Your task to perform on an android device: change keyboard looks Image 0: 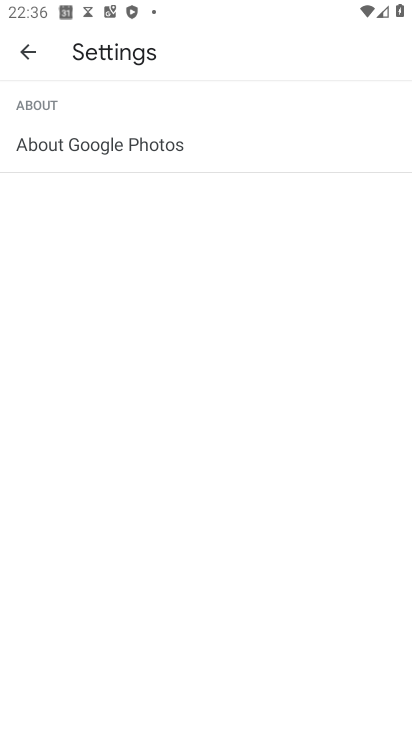
Step 0: press home button
Your task to perform on an android device: change keyboard looks Image 1: 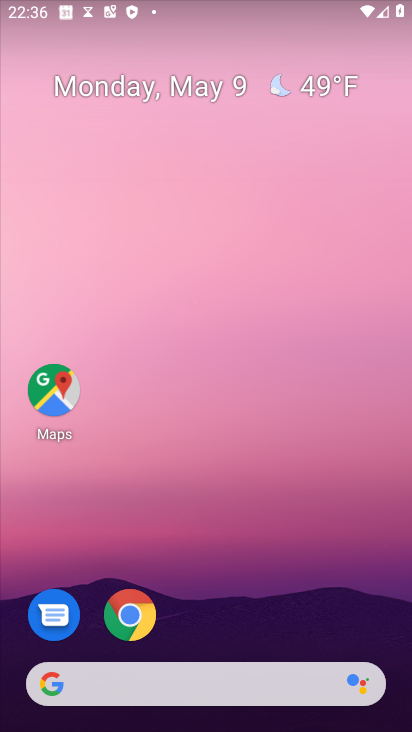
Step 1: drag from (256, 634) to (256, 375)
Your task to perform on an android device: change keyboard looks Image 2: 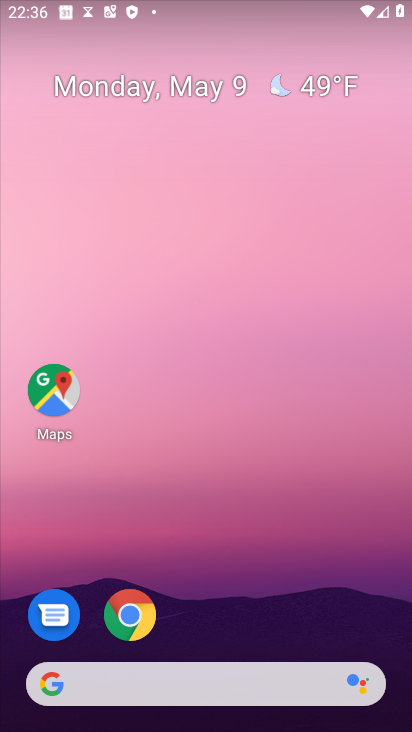
Step 2: drag from (264, 356) to (298, 135)
Your task to perform on an android device: change keyboard looks Image 3: 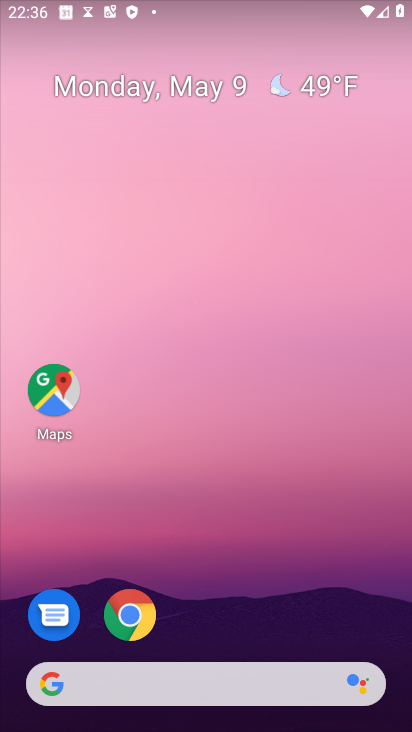
Step 3: drag from (207, 565) to (264, 137)
Your task to perform on an android device: change keyboard looks Image 4: 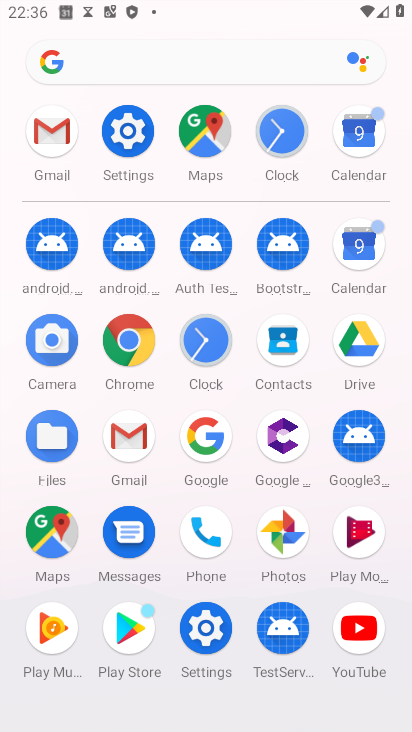
Step 4: click (129, 150)
Your task to perform on an android device: change keyboard looks Image 5: 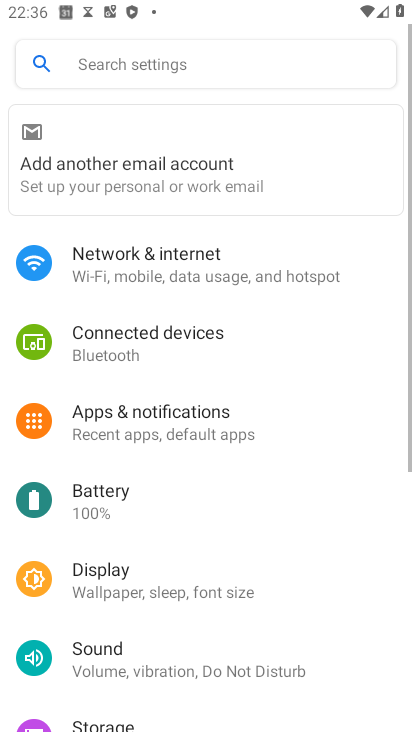
Step 5: drag from (194, 653) to (225, 298)
Your task to perform on an android device: change keyboard looks Image 6: 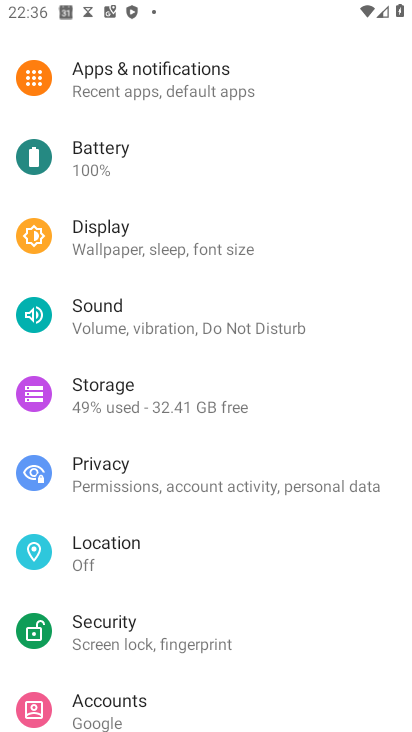
Step 6: drag from (210, 598) to (292, 217)
Your task to perform on an android device: change keyboard looks Image 7: 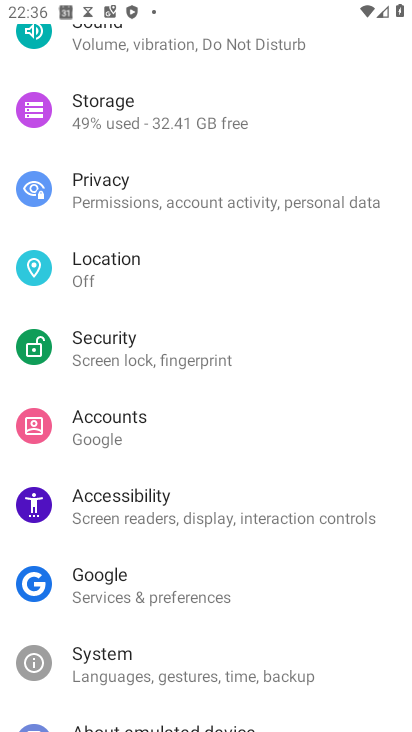
Step 7: click (211, 675)
Your task to perform on an android device: change keyboard looks Image 8: 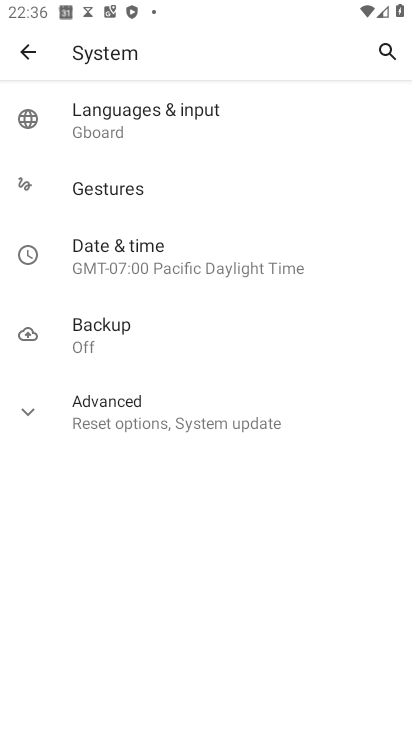
Step 8: click (240, 129)
Your task to perform on an android device: change keyboard looks Image 9: 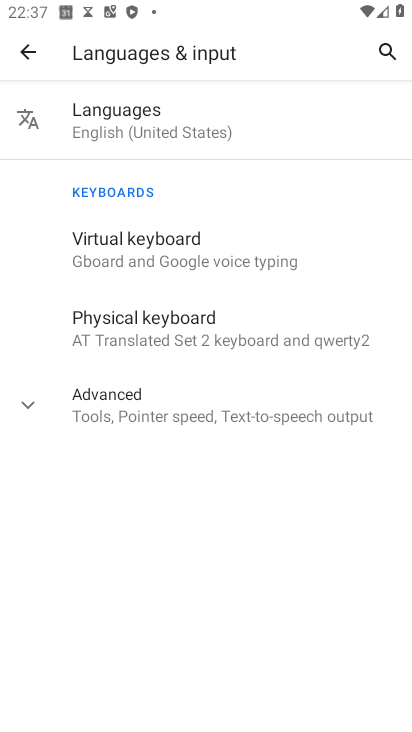
Step 9: click (173, 258)
Your task to perform on an android device: change keyboard looks Image 10: 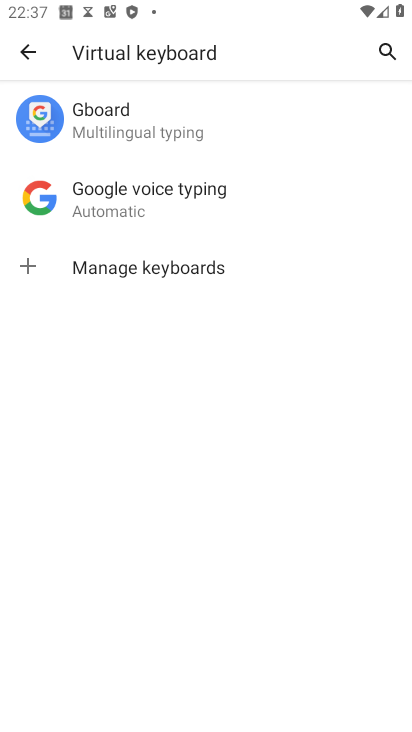
Step 10: click (210, 120)
Your task to perform on an android device: change keyboard looks Image 11: 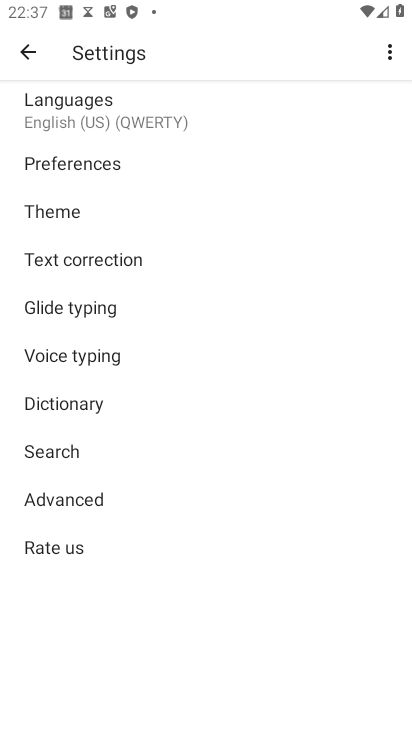
Step 11: click (115, 213)
Your task to perform on an android device: change keyboard looks Image 12: 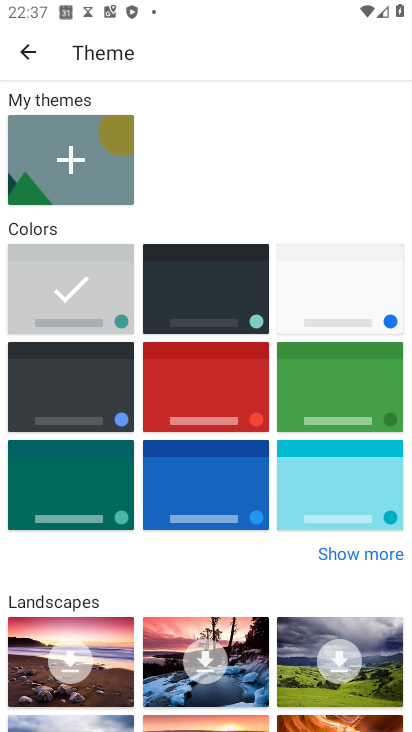
Step 12: click (172, 249)
Your task to perform on an android device: change keyboard looks Image 13: 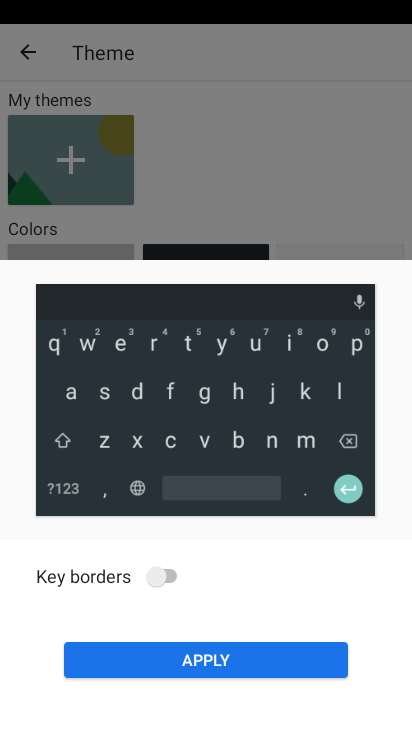
Step 13: click (197, 655)
Your task to perform on an android device: change keyboard looks Image 14: 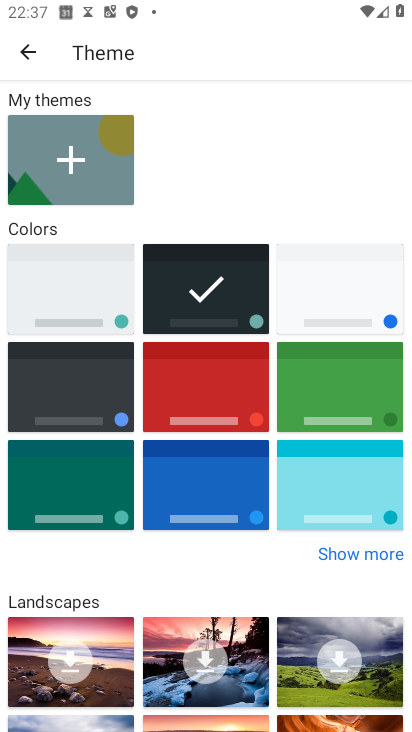
Step 14: task complete